Your task to perform on an android device: open app "Pandora - Music & Podcasts" Image 0: 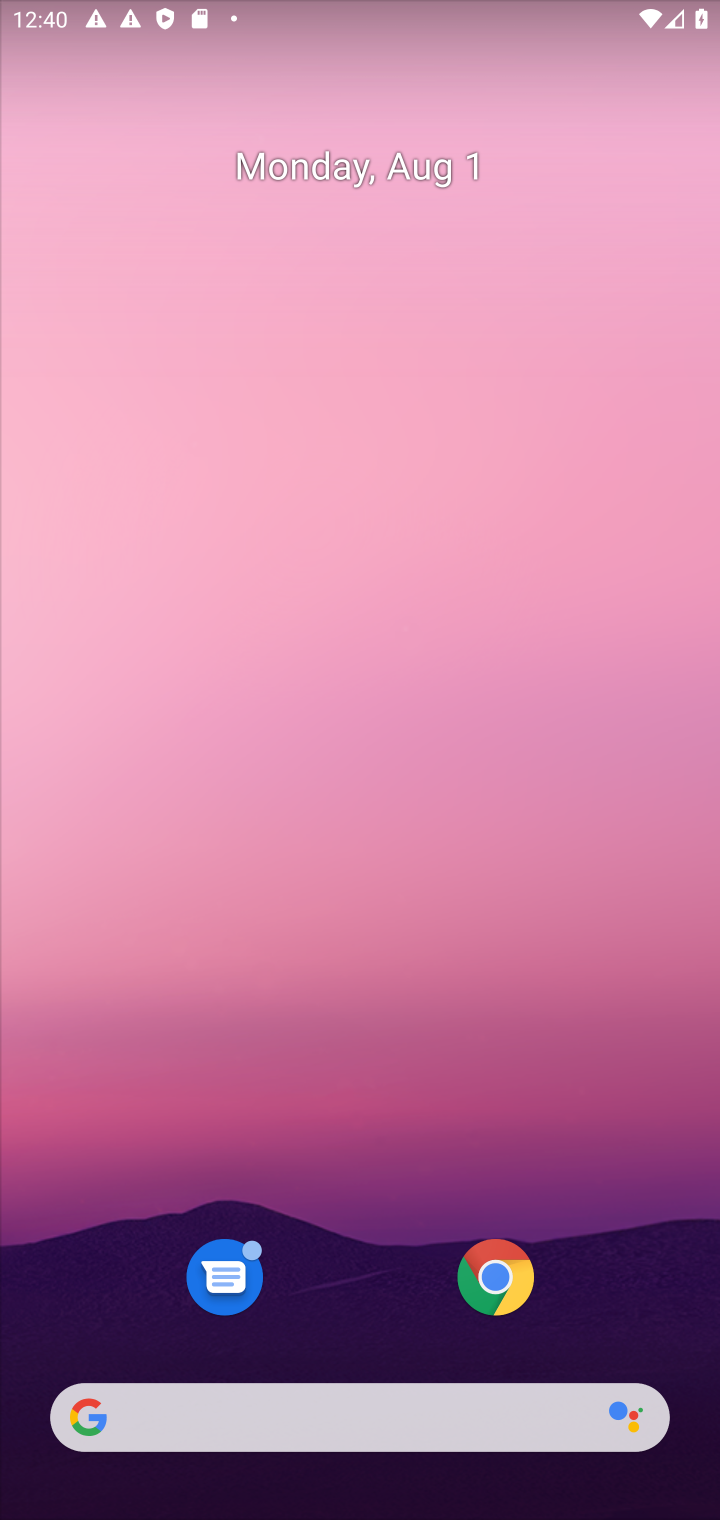
Step 0: drag from (394, 1318) to (372, 368)
Your task to perform on an android device: open app "Pandora - Music & Podcasts" Image 1: 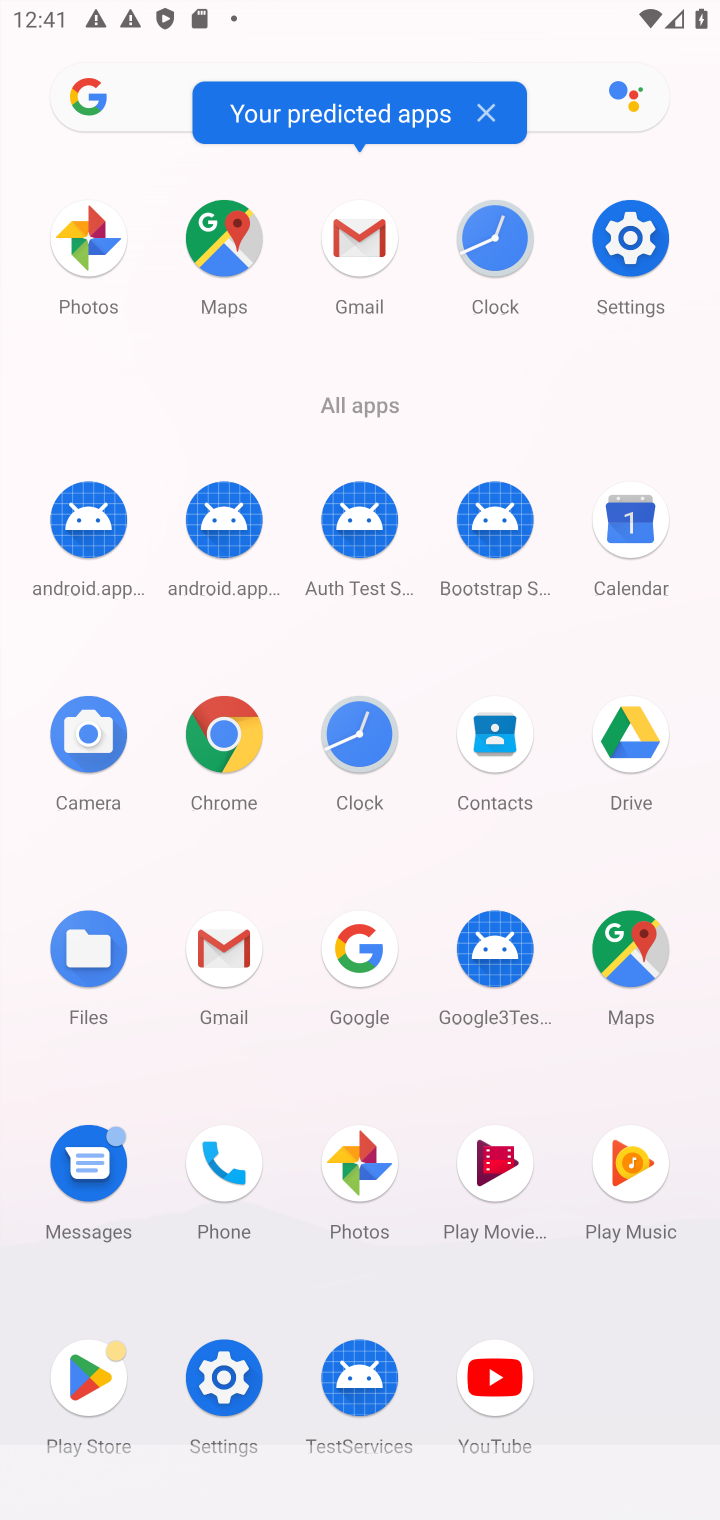
Step 1: click (93, 1346)
Your task to perform on an android device: open app "Pandora - Music & Podcasts" Image 2: 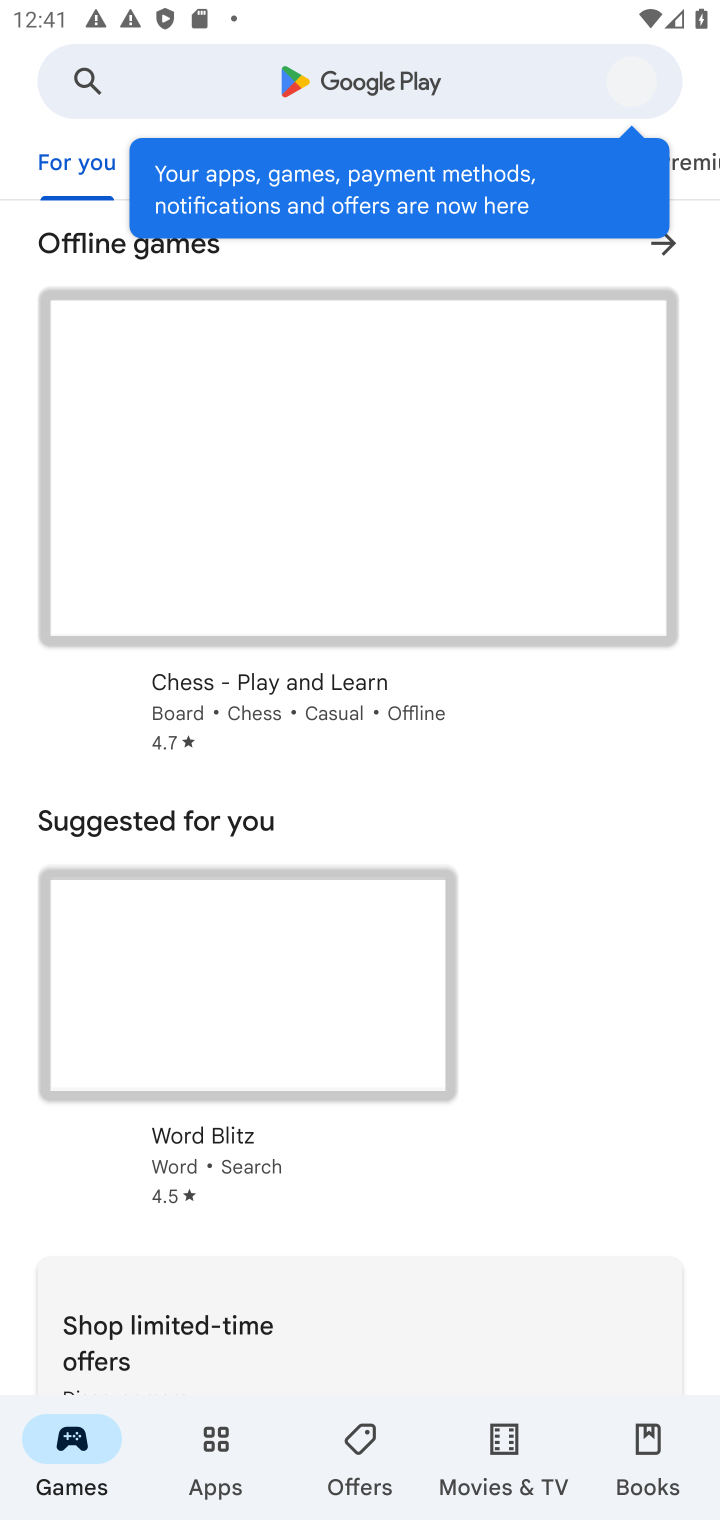
Step 2: click (281, 51)
Your task to perform on an android device: open app "Pandora - Music & Podcasts" Image 3: 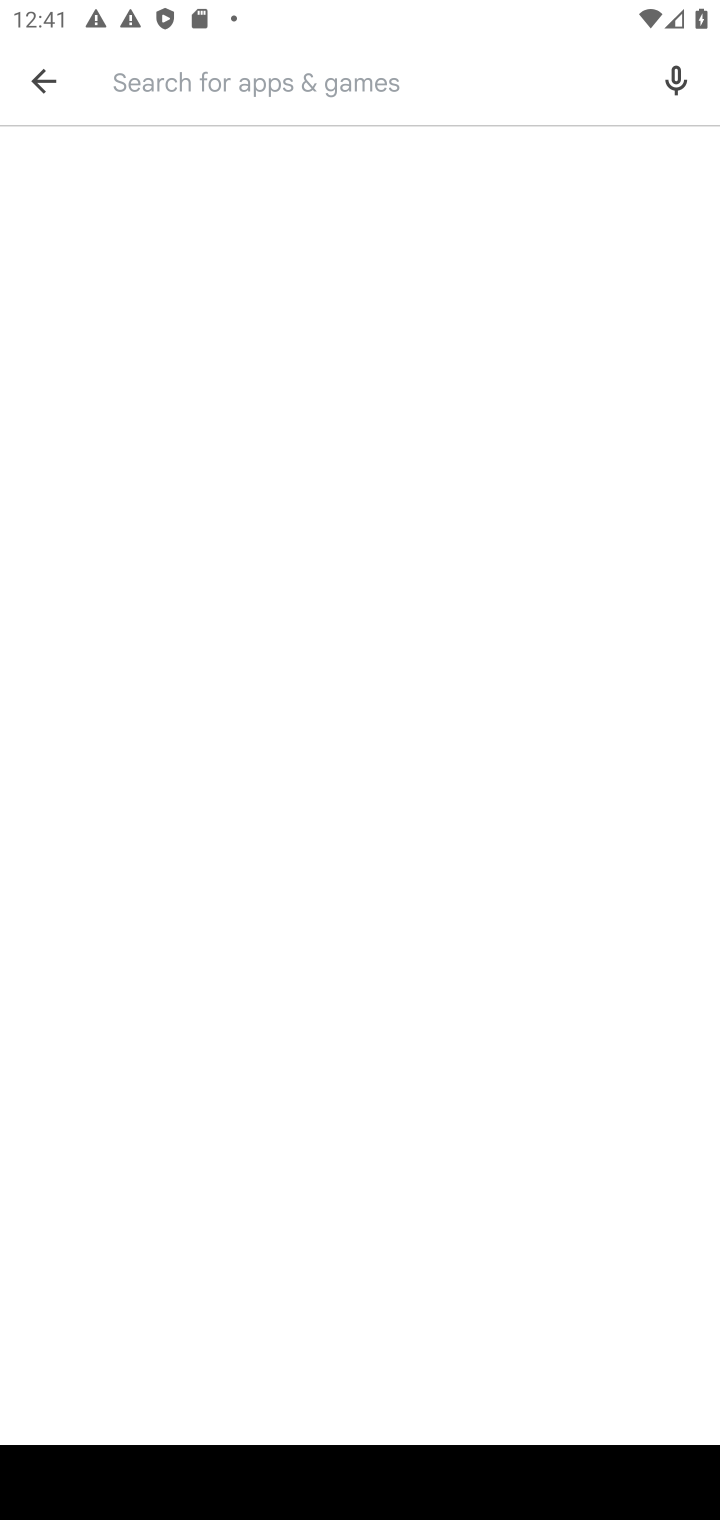
Step 3: type "pandora - music & podcasts"
Your task to perform on an android device: open app "Pandora - Music & Podcasts" Image 4: 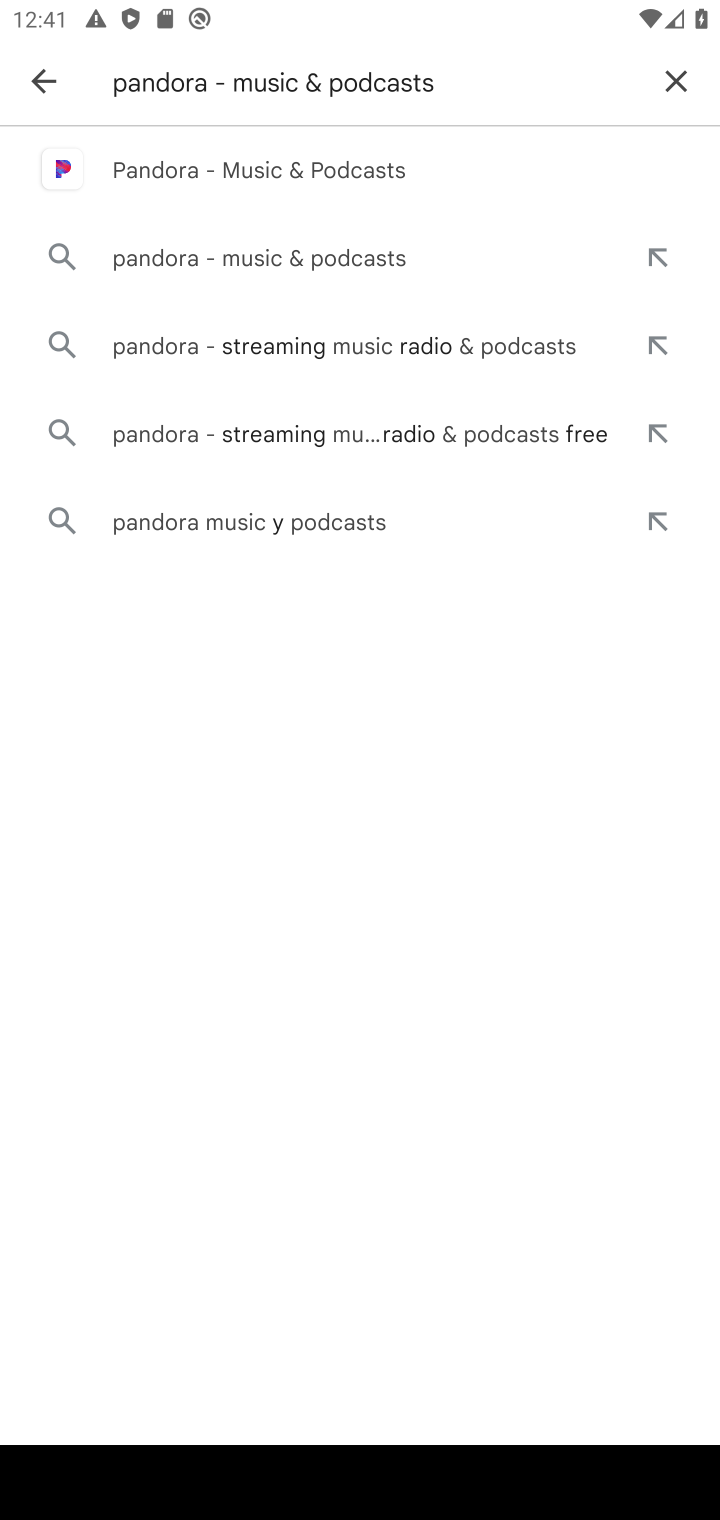
Step 4: click (320, 158)
Your task to perform on an android device: open app "Pandora - Music & Podcasts" Image 5: 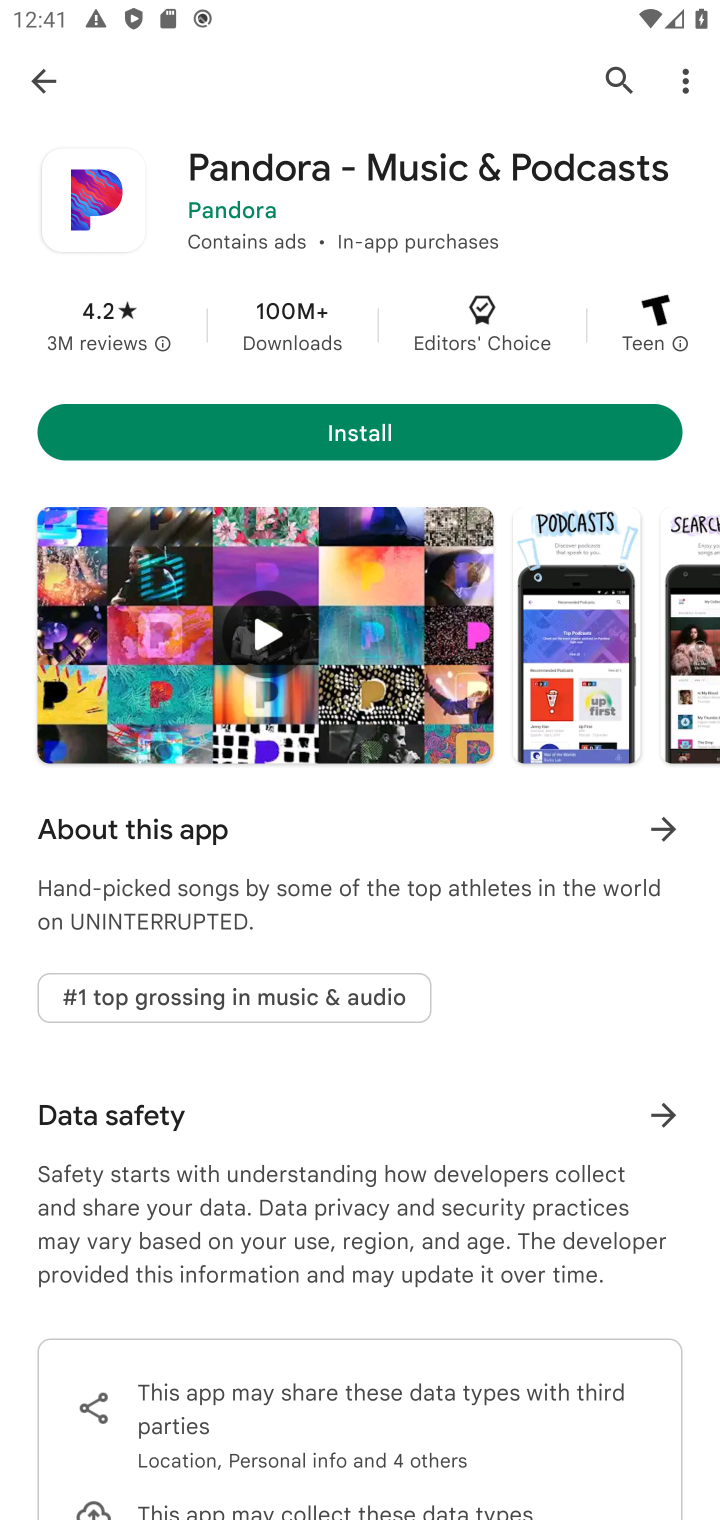
Step 5: task complete